Your task to perform on an android device: turn off wifi Image 0: 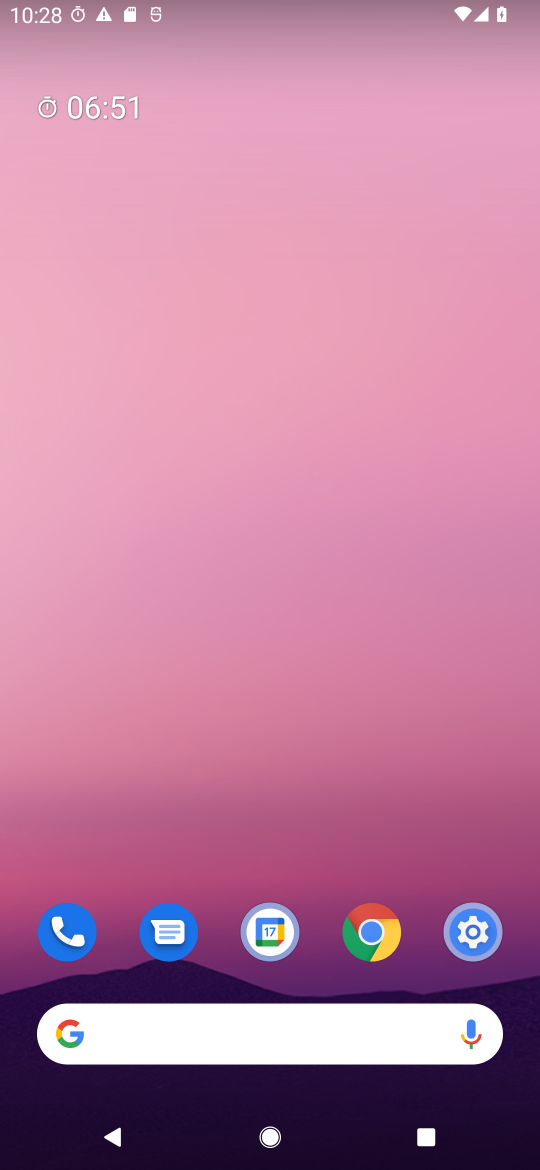
Step 0: drag from (312, 825) to (312, 193)
Your task to perform on an android device: turn off wifi Image 1: 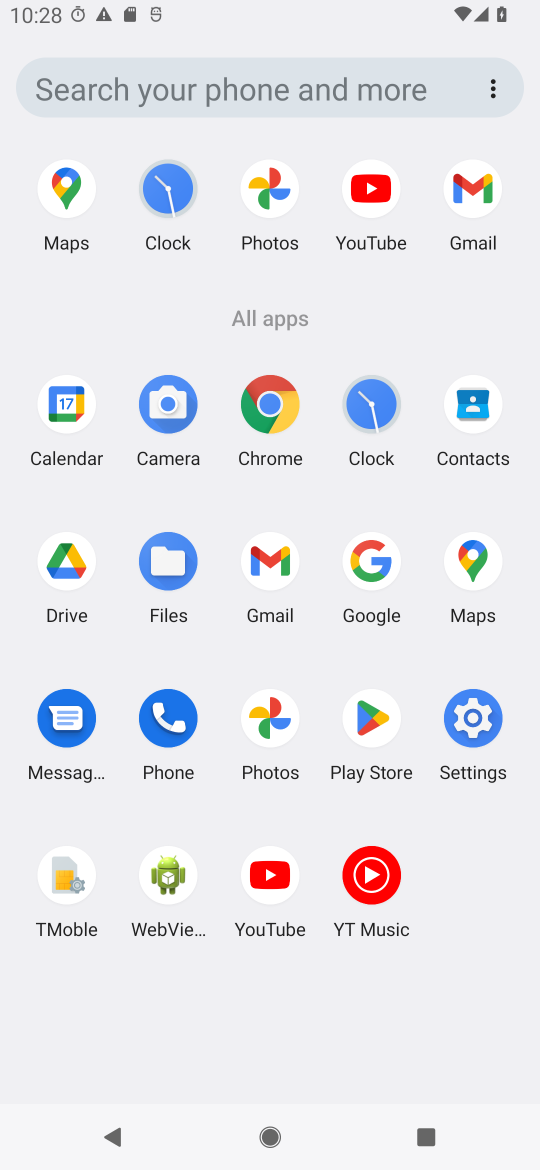
Step 1: click (480, 704)
Your task to perform on an android device: turn off wifi Image 2: 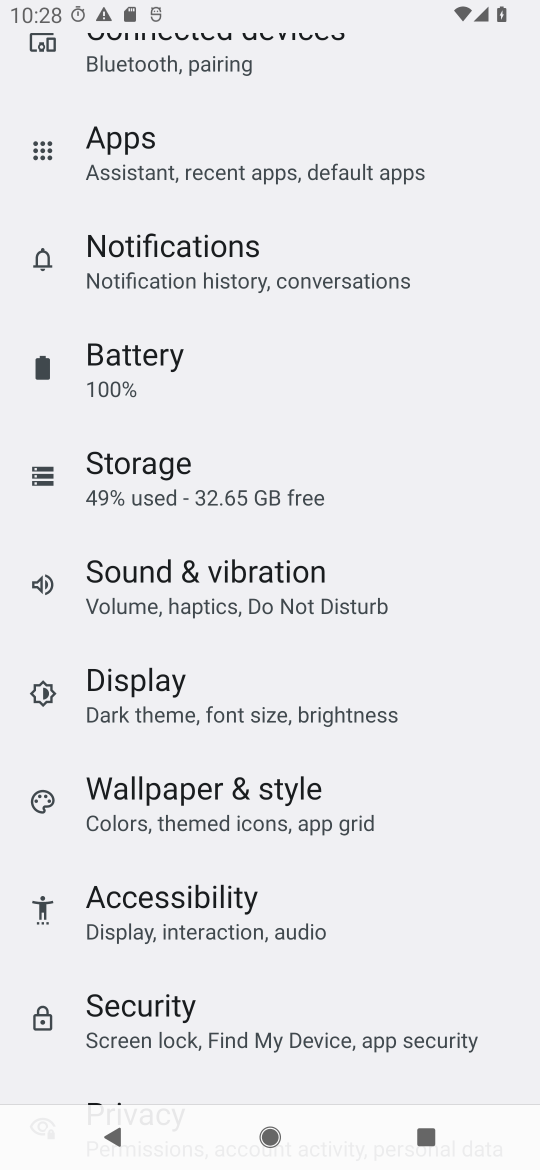
Step 2: drag from (207, 217) to (357, 1169)
Your task to perform on an android device: turn off wifi Image 3: 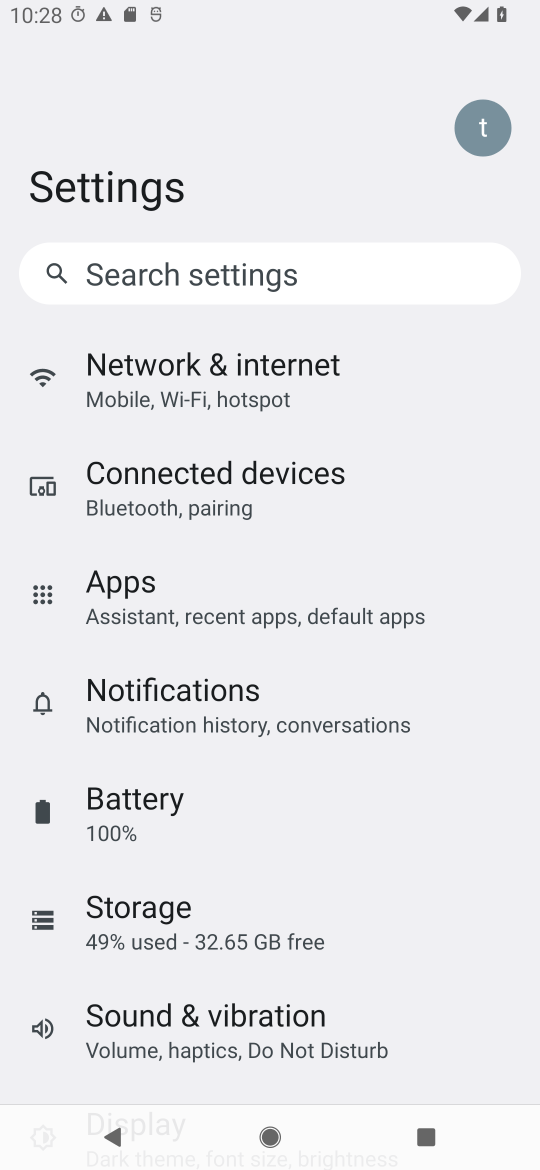
Step 3: click (175, 387)
Your task to perform on an android device: turn off wifi Image 4: 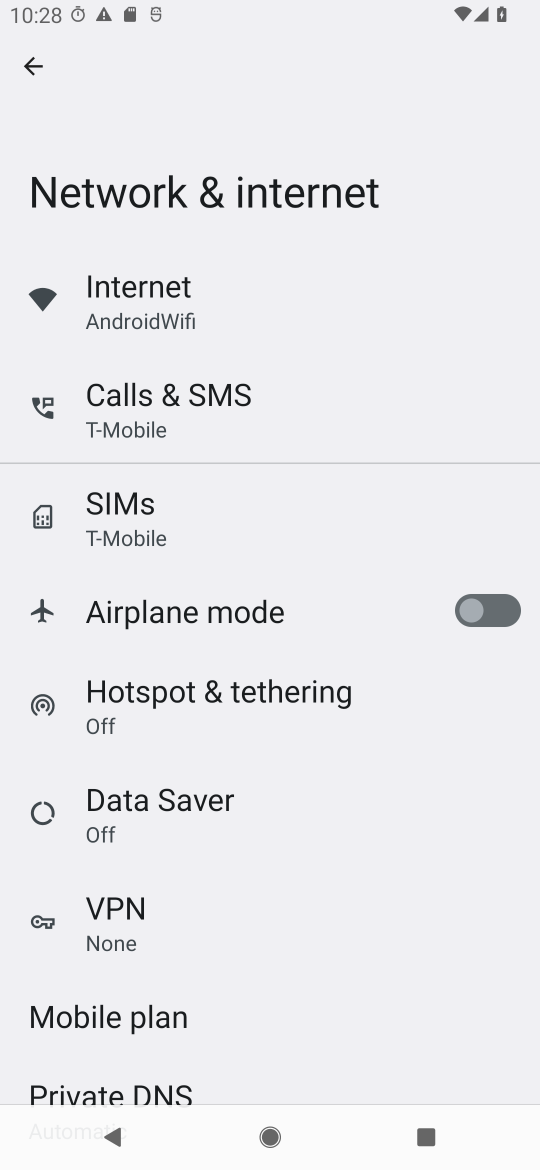
Step 4: click (174, 300)
Your task to perform on an android device: turn off wifi Image 5: 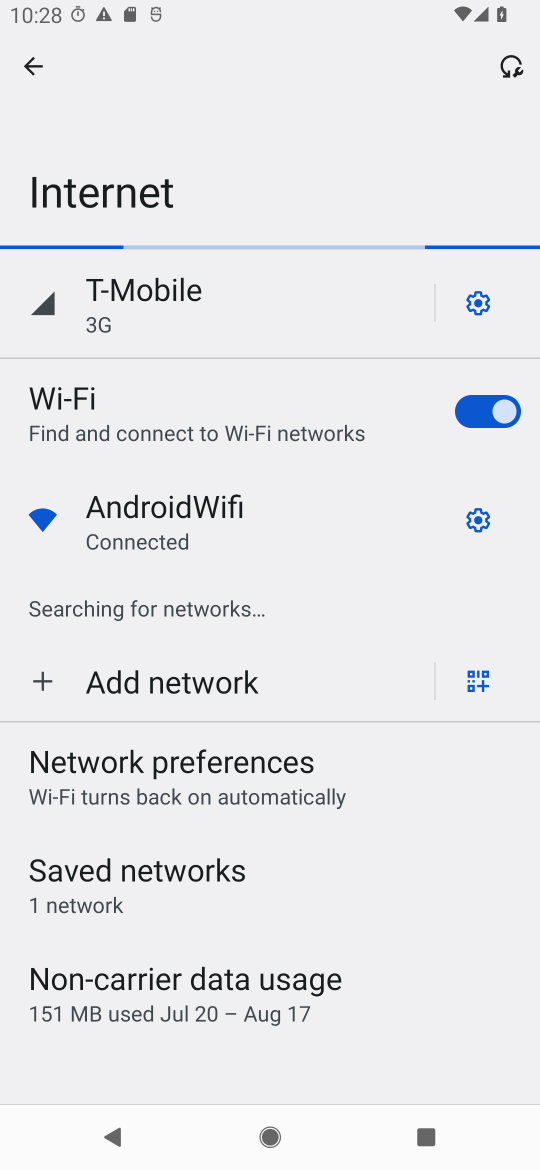
Step 5: click (465, 414)
Your task to perform on an android device: turn off wifi Image 6: 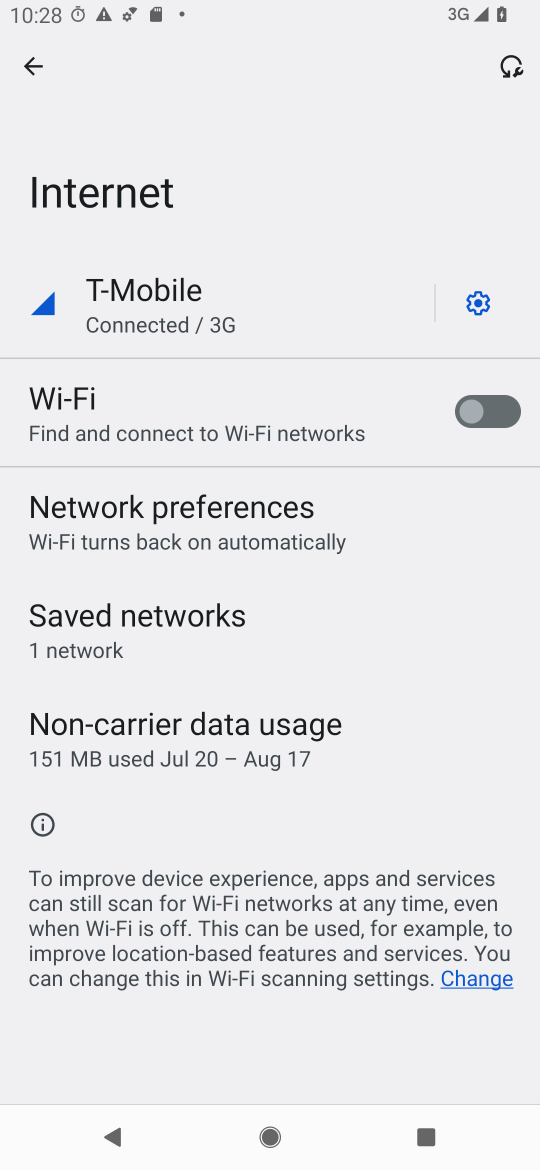
Step 6: task complete